Your task to perform on an android device: open a bookmark in the chrome app Image 0: 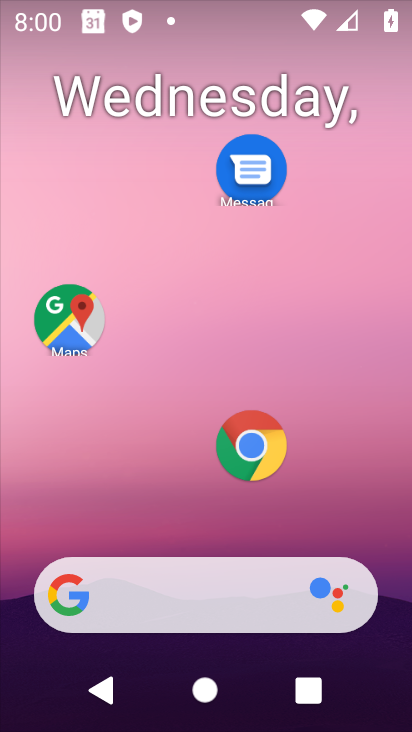
Step 0: drag from (348, 689) to (189, 125)
Your task to perform on an android device: open a bookmark in the chrome app Image 1: 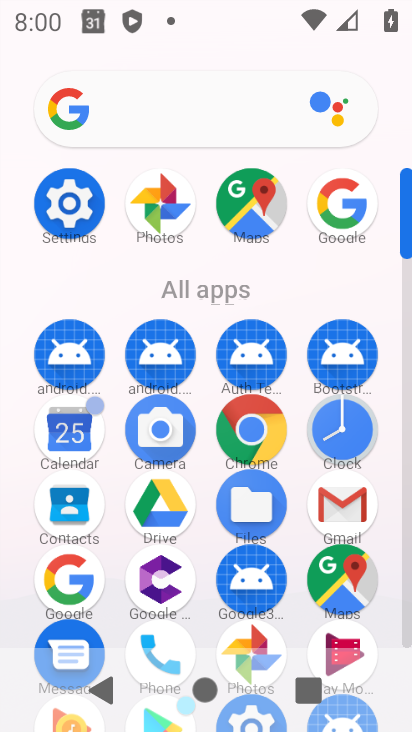
Step 1: click (68, 197)
Your task to perform on an android device: open a bookmark in the chrome app Image 2: 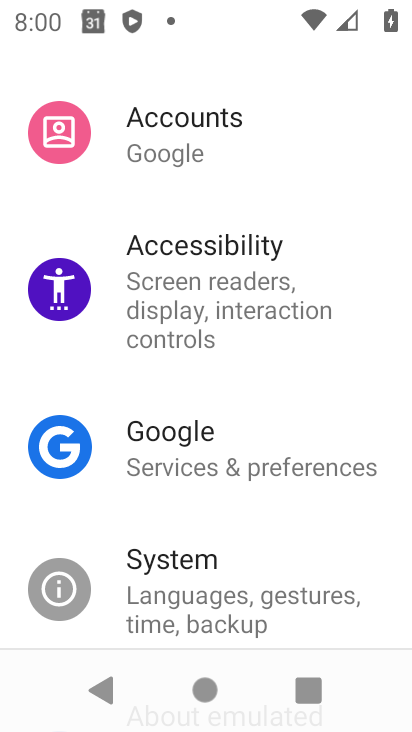
Step 2: press home button
Your task to perform on an android device: open a bookmark in the chrome app Image 3: 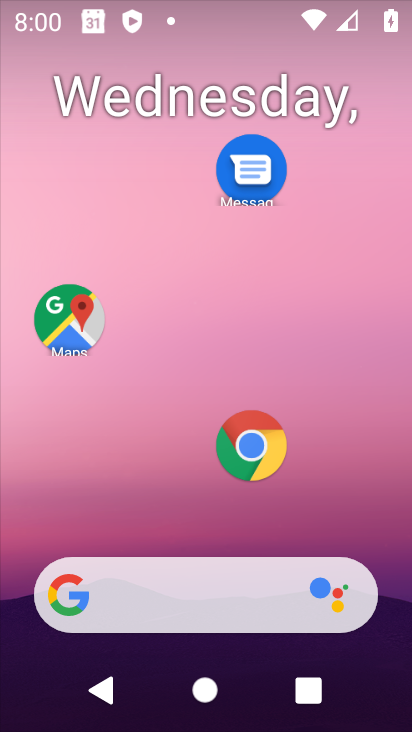
Step 3: drag from (231, 514) to (129, 42)
Your task to perform on an android device: open a bookmark in the chrome app Image 4: 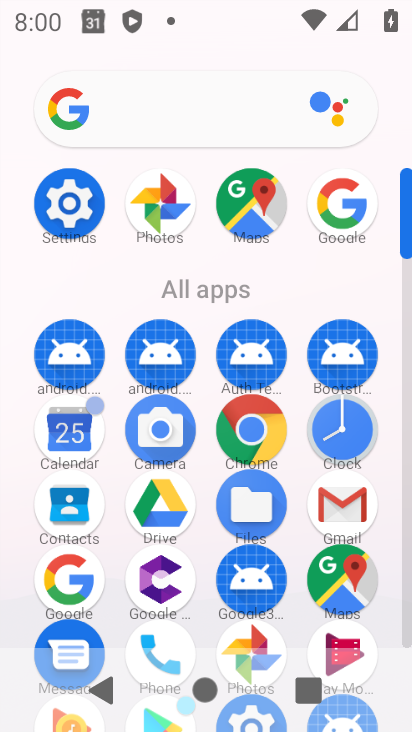
Step 4: click (249, 432)
Your task to perform on an android device: open a bookmark in the chrome app Image 5: 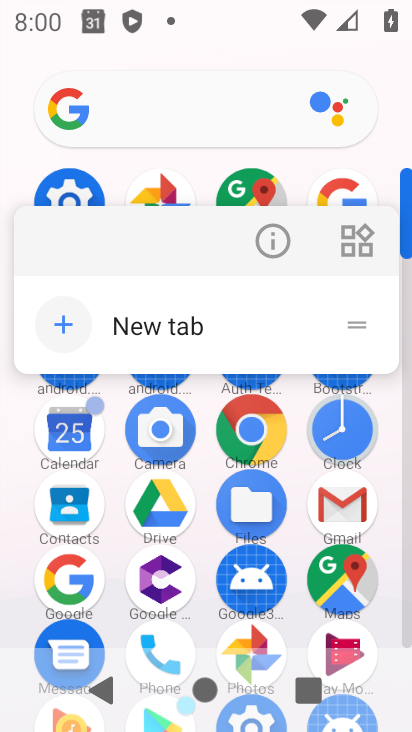
Step 5: click (249, 432)
Your task to perform on an android device: open a bookmark in the chrome app Image 6: 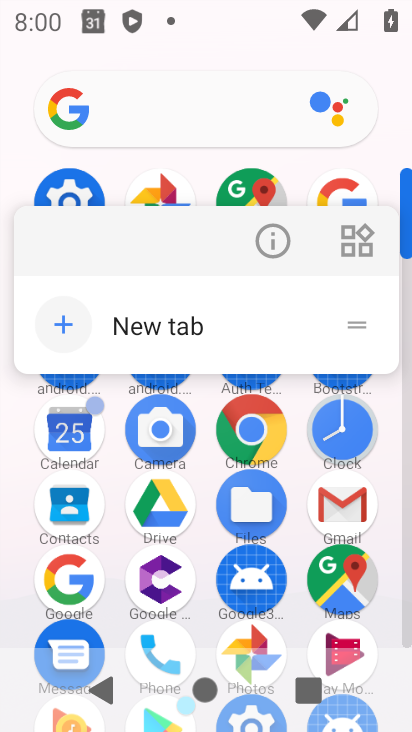
Step 6: click (249, 432)
Your task to perform on an android device: open a bookmark in the chrome app Image 7: 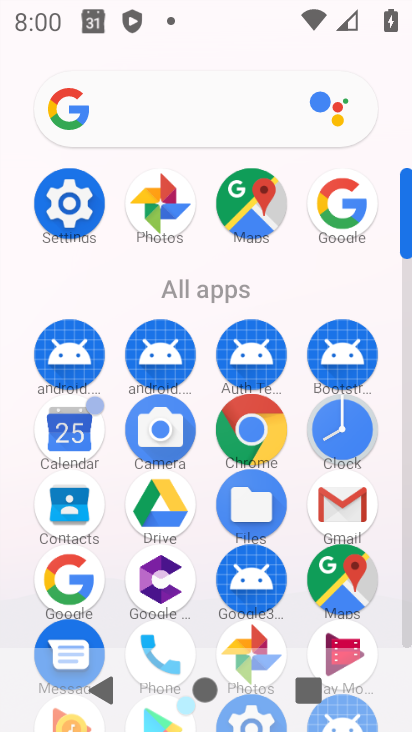
Step 7: click (249, 432)
Your task to perform on an android device: open a bookmark in the chrome app Image 8: 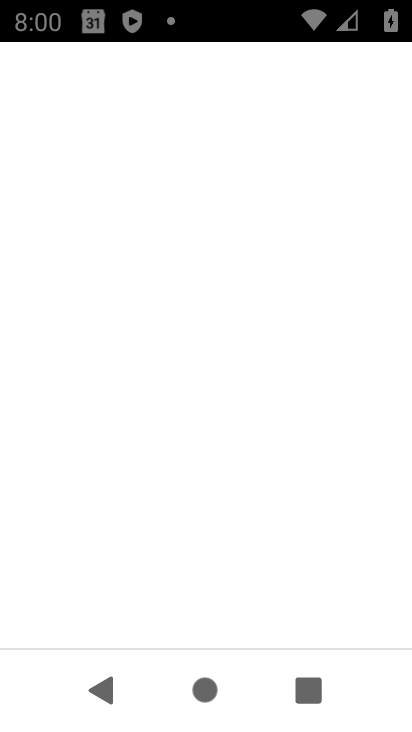
Step 8: click (249, 432)
Your task to perform on an android device: open a bookmark in the chrome app Image 9: 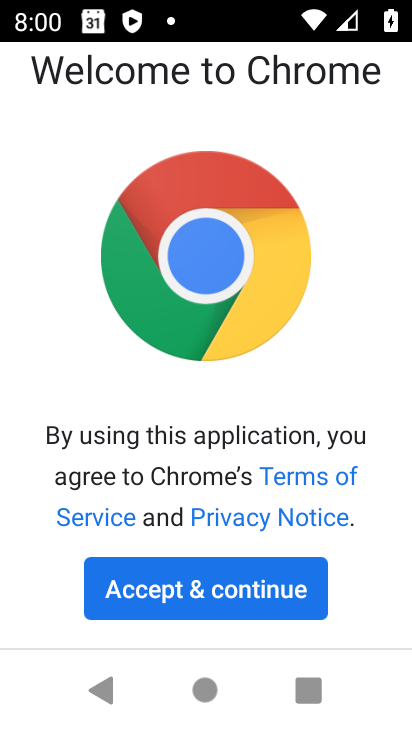
Step 9: click (168, 592)
Your task to perform on an android device: open a bookmark in the chrome app Image 10: 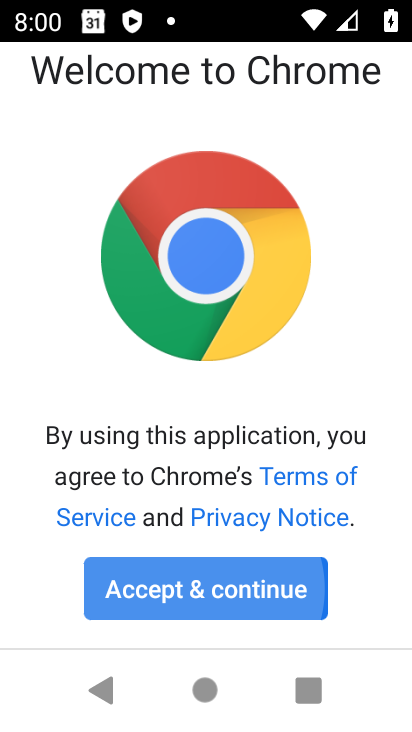
Step 10: click (168, 592)
Your task to perform on an android device: open a bookmark in the chrome app Image 11: 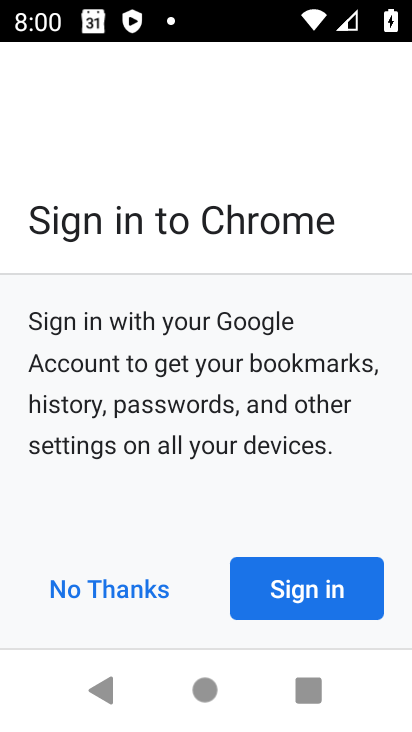
Step 11: click (168, 592)
Your task to perform on an android device: open a bookmark in the chrome app Image 12: 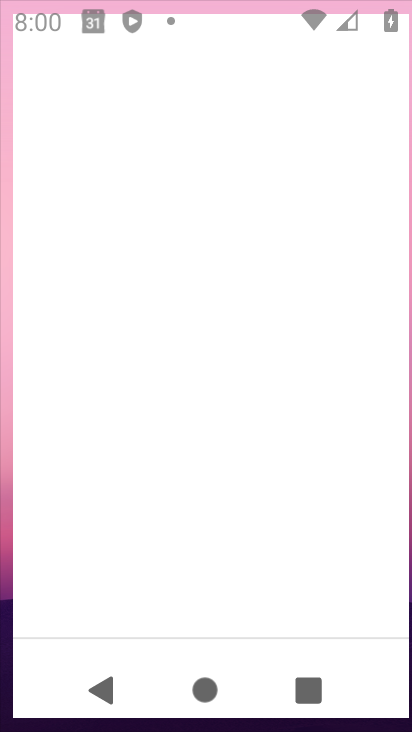
Step 12: click (168, 592)
Your task to perform on an android device: open a bookmark in the chrome app Image 13: 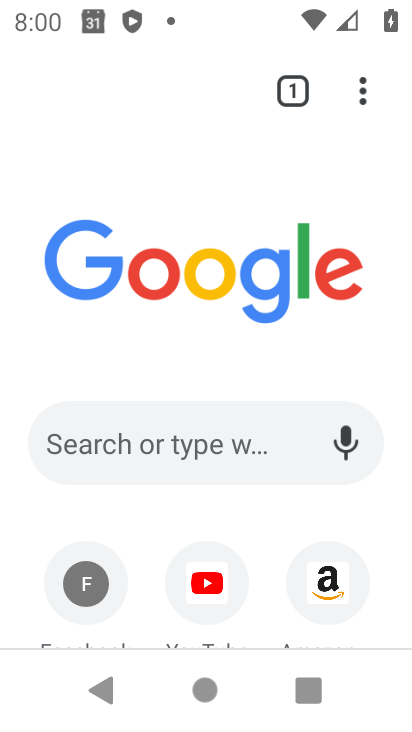
Step 13: drag from (360, 99) to (70, 346)
Your task to perform on an android device: open a bookmark in the chrome app Image 14: 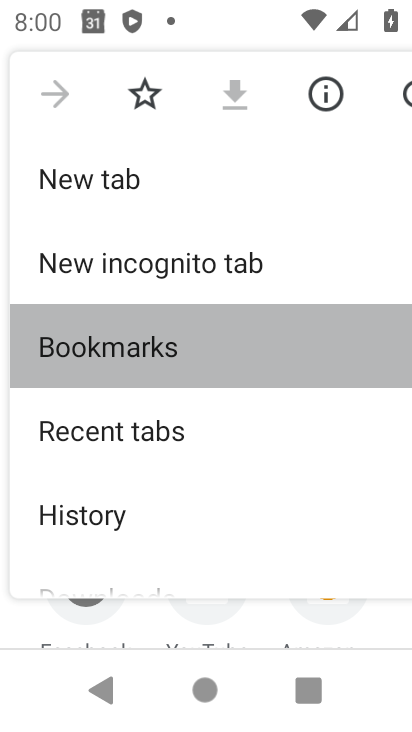
Step 14: click (71, 347)
Your task to perform on an android device: open a bookmark in the chrome app Image 15: 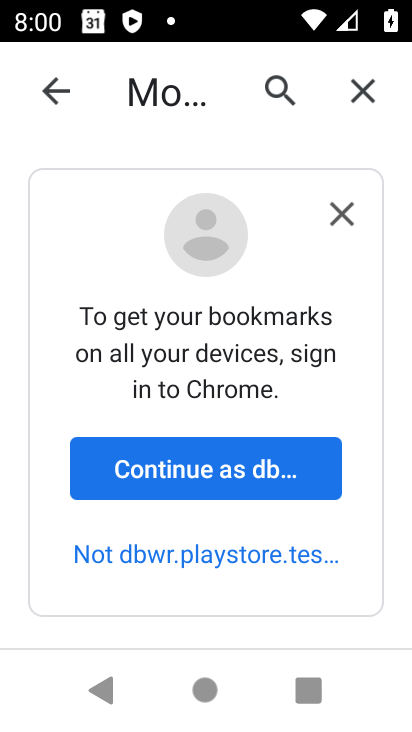
Step 15: task complete